Your task to perform on an android device: Show me the alarms in the clock app Image 0: 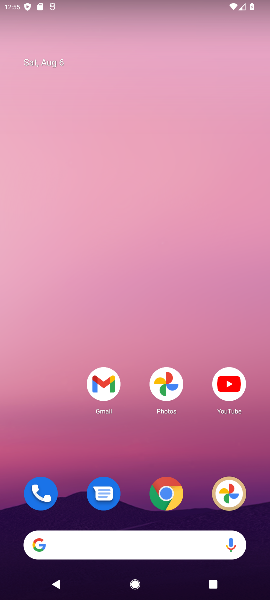
Step 0: drag from (141, 532) to (137, 15)
Your task to perform on an android device: Show me the alarms in the clock app Image 1: 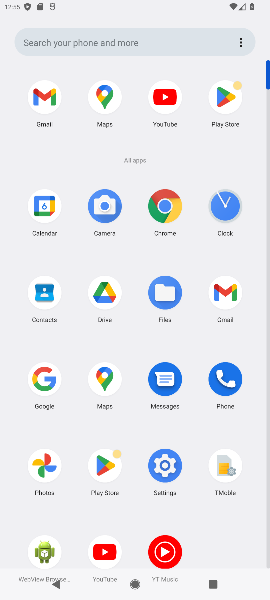
Step 1: click (222, 201)
Your task to perform on an android device: Show me the alarms in the clock app Image 2: 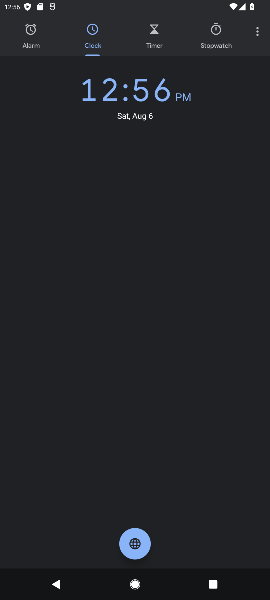
Step 2: click (31, 50)
Your task to perform on an android device: Show me the alarms in the clock app Image 3: 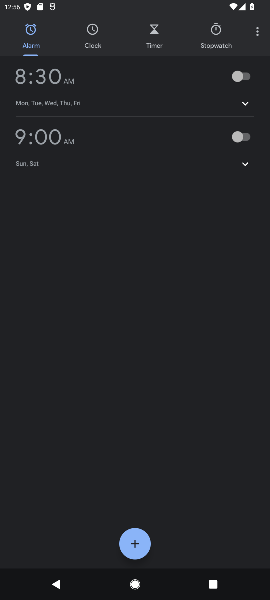
Step 3: task complete